Your task to perform on an android device: turn on the 24-hour format for clock Image 0: 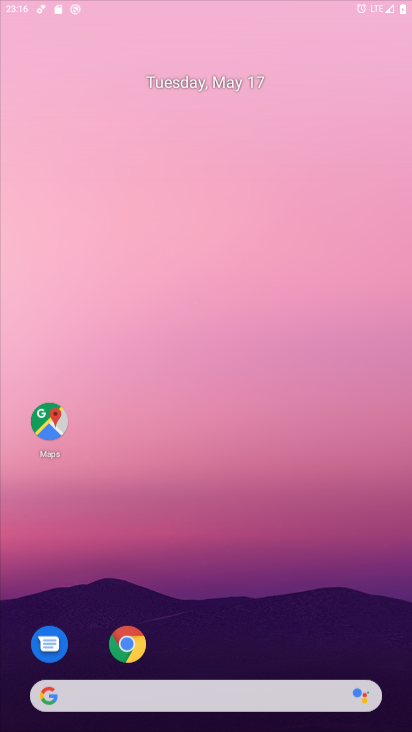
Step 0: press home button
Your task to perform on an android device: turn on the 24-hour format for clock Image 1: 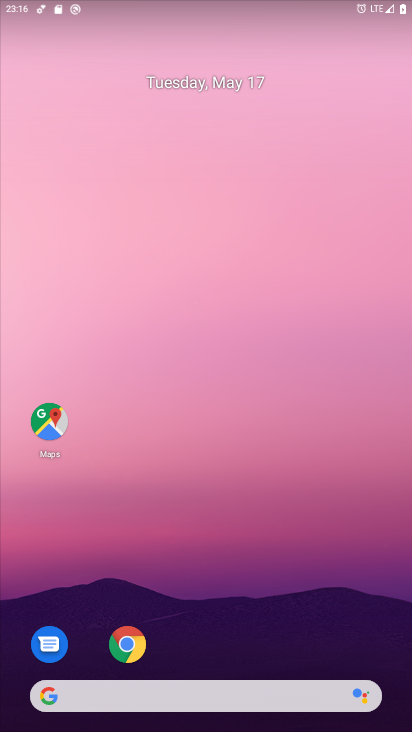
Step 1: drag from (213, 656) to (243, 76)
Your task to perform on an android device: turn on the 24-hour format for clock Image 2: 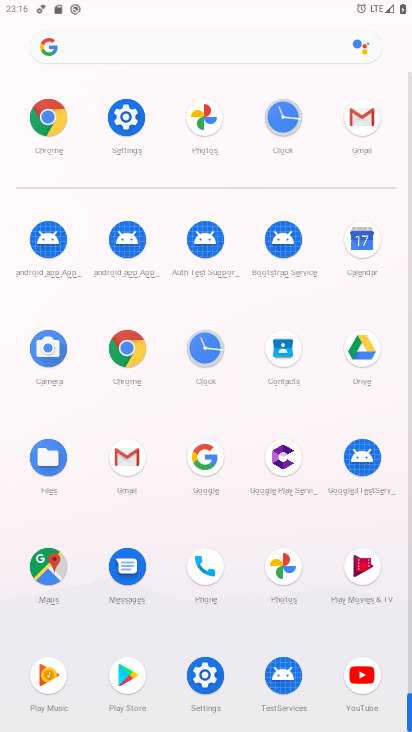
Step 2: click (202, 341)
Your task to perform on an android device: turn on the 24-hour format for clock Image 3: 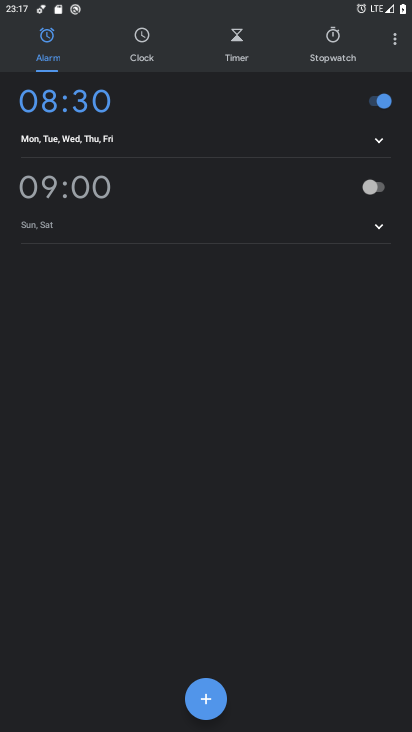
Step 3: click (393, 39)
Your task to perform on an android device: turn on the 24-hour format for clock Image 4: 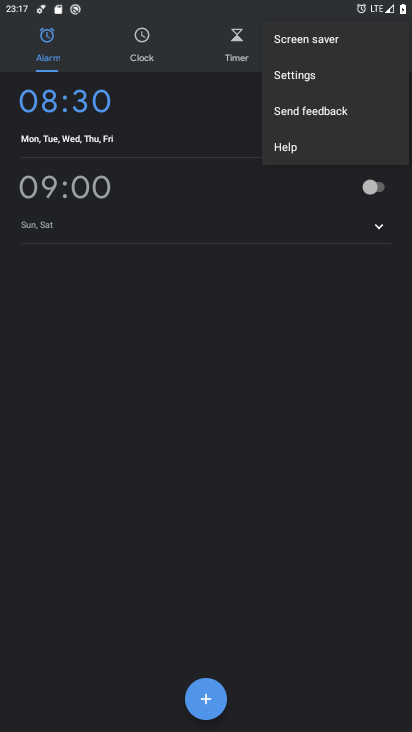
Step 4: click (325, 72)
Your task to perform on an android device: turn on the 24-hour format for clock Image 5: 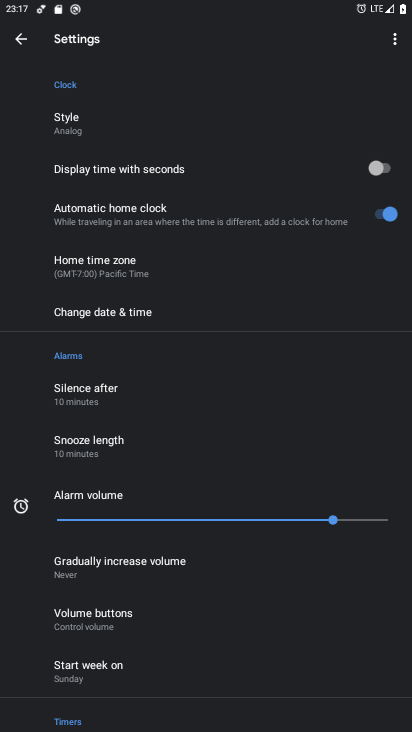
Step 5: click (164, 310)
Your task to perform on an android device: turn on the 24-hour format for clock Image 6: 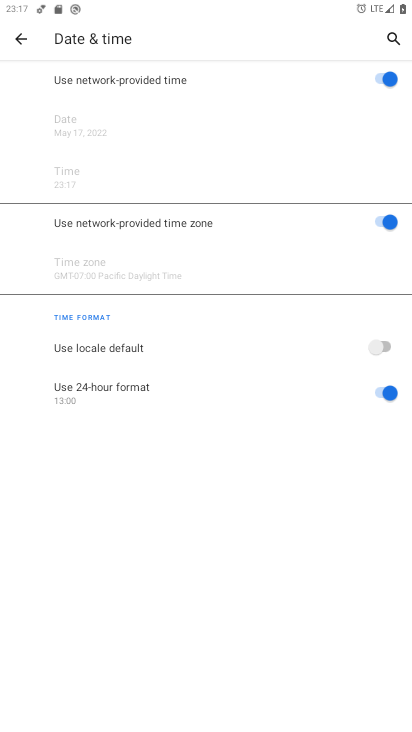
Step 6: task complete